Your task to perform on an android device: delete the emails in spam in the gmail app Image 0: 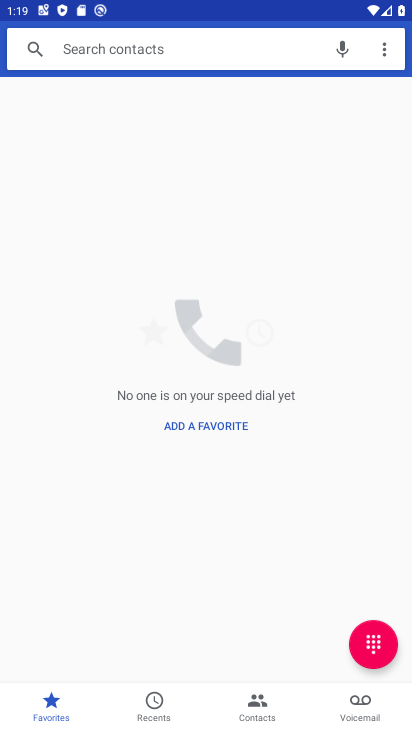
Step 0: press home button
Your task to perform on an android device: delete the emails in spam in the gmail app Image 1: 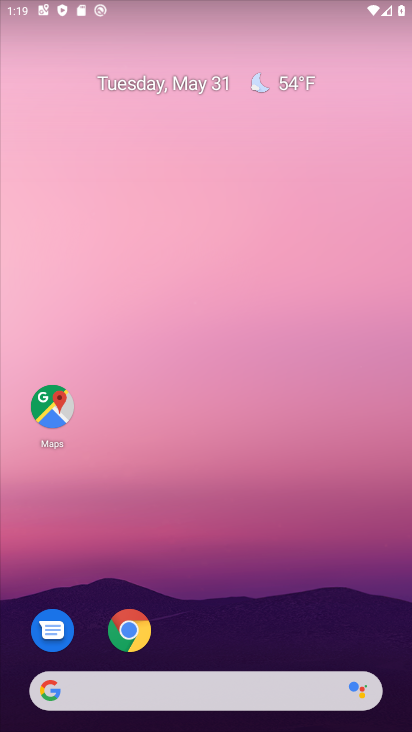
Step 1: drag from (222, 529) to (252, 0)
Your task to perform on an android device: delete the emails in spam in the gmail app Image 2: 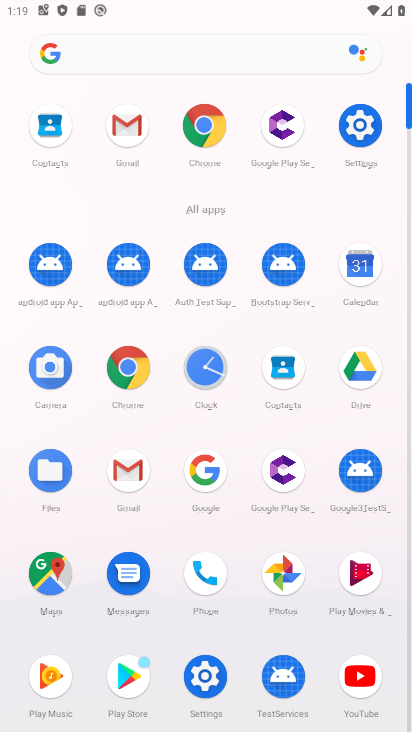
Step 2: click (124, 133)
Your task to perform on an android device: delete the emails in spam in the gmail app Image 3: 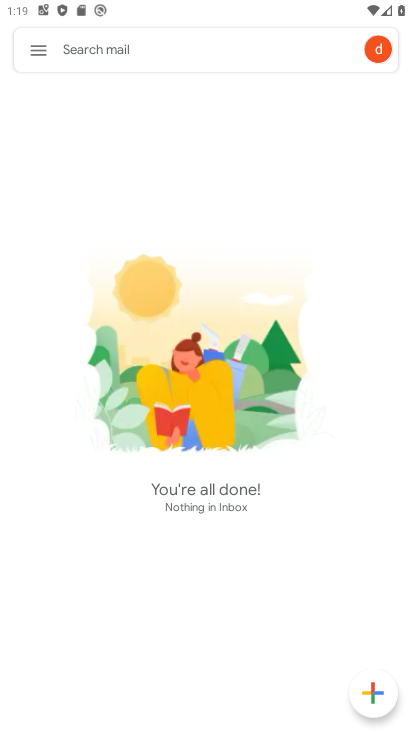
Step 3: click (35, 47)
Your task to perform on an android device: delete the emails in spam in the gmail app Image 4: 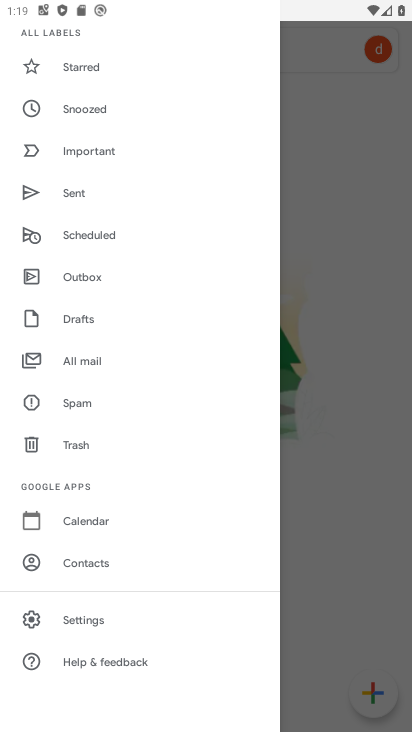
Step 4: drag from (93, 132) to (139, 385)
Your task to perform on an android device: delete the emails in spam in the gmail app Image 5: 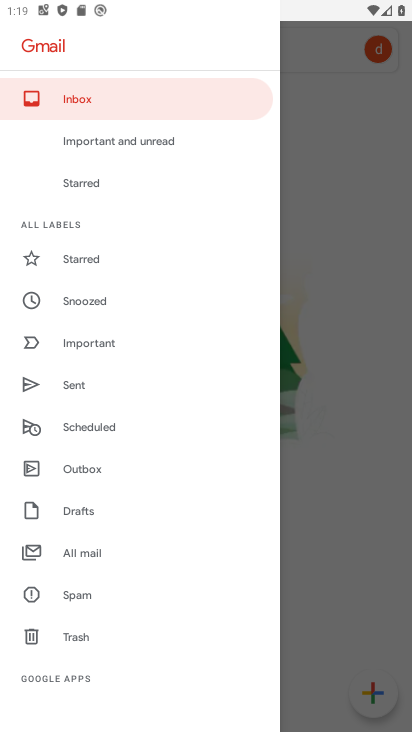
Step 5: click (53, 594)
Your task to perform on an android device: delete the emails in spam in the gmail app Image 6: 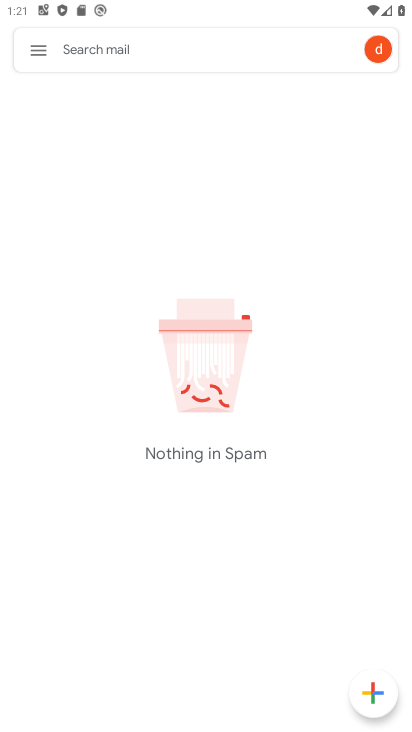
Step 6: task complete